Your task to perform on an android device: turn off smart reply in the gmail app Image 0: 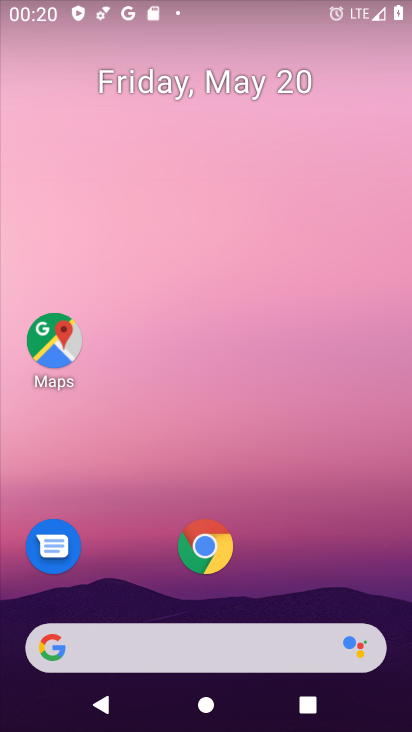
Step 0: drag from (292, 474) to (286, 120)
Your task to perform on an android device: turn off smart reply in the gmail app Image 1: 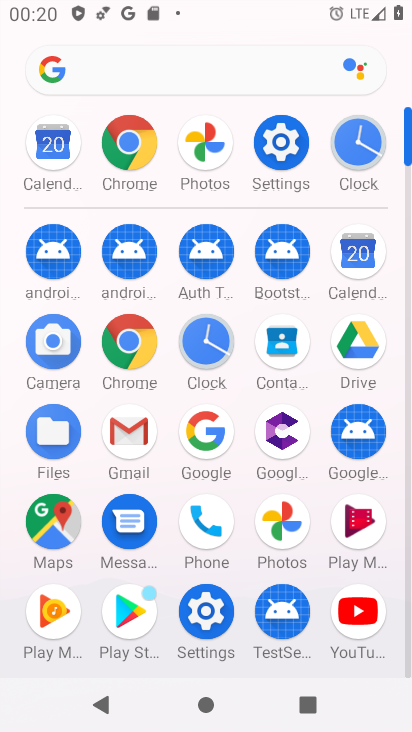
Step 1: click (134, 427)
Your task to perform on an android device: turn off smart reply in the gmail app Image 2: 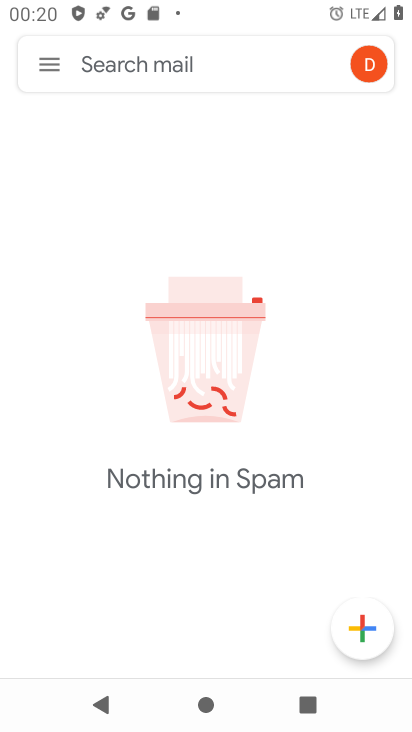
Step 2: click (58, 67)
Your task to perform on an android device: turn off smart reply in the gmail app Image 3: 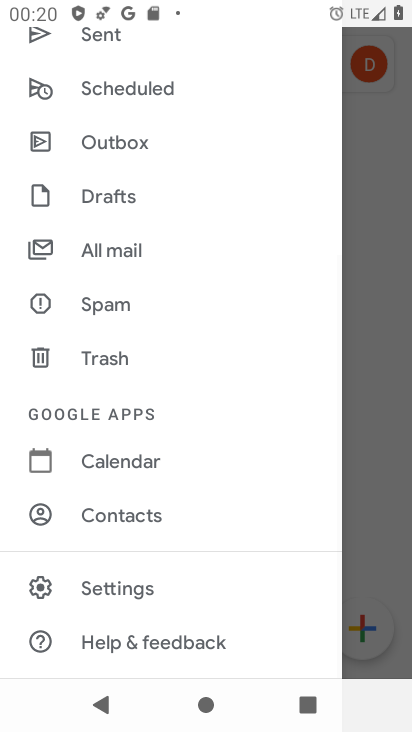
Step 3: click (150, 582)
Your task to perform on an android device: turn off smart reply in the gmail app Image 4: 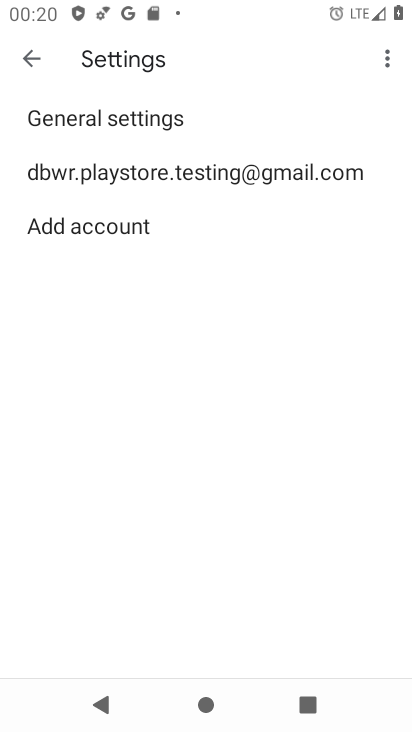
Step 4: click (211, 177)
Your task to perform on an android device: turn off smart reply in the gmail app Image 5: 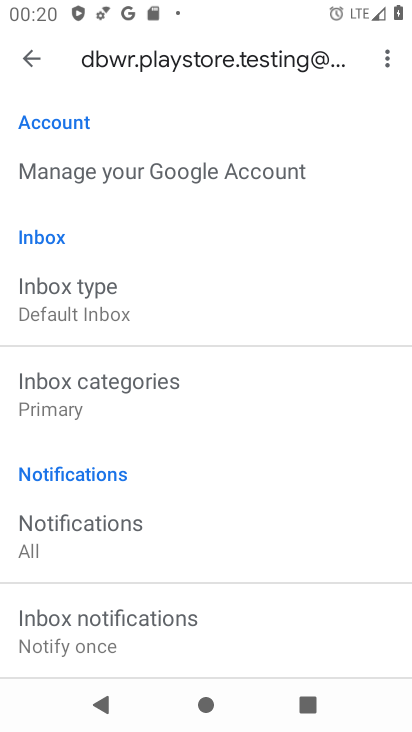
Step 5: drag from (213, 559) to (272, 144)
Your task to perform on an android device: turn off smart reply in the gmail app Image 6: 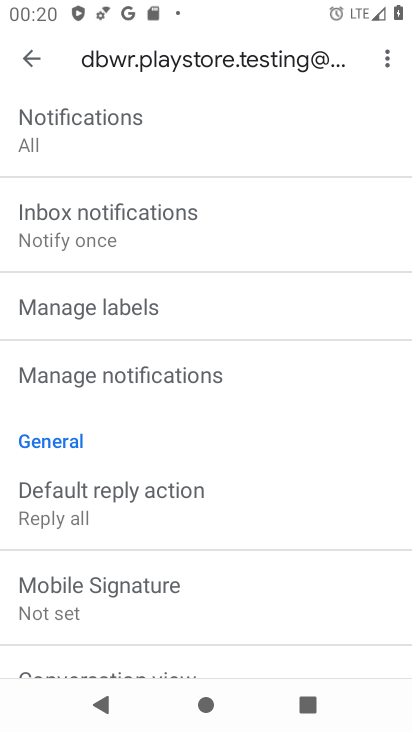
Step 6: drag from (254, 412) to (274, 165)
Your task to perform on an android device: turn off smart reply in the gmail app Image 7: 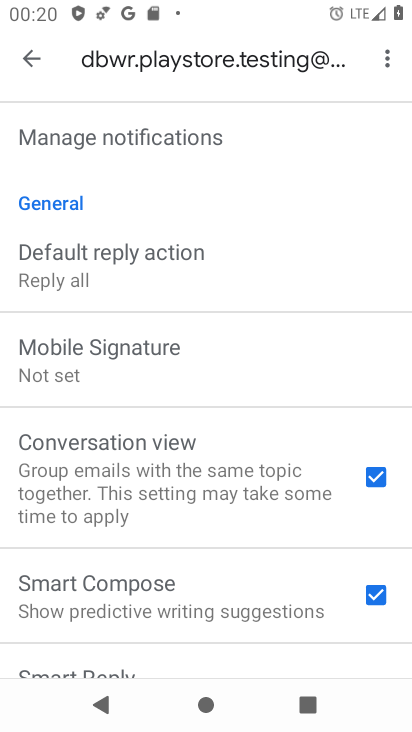
Step 7: drag from (253, 561) to (278, 191)
Your task to perform on an android device: turn off smart reply in the gmail app Image 8: 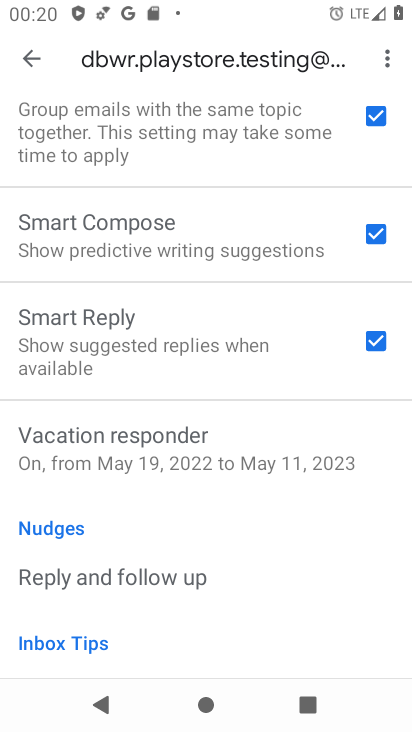
Step 8: click (370, 339)
Your task to perform on an android device: turn off smart reply in the gmail app Image 9: 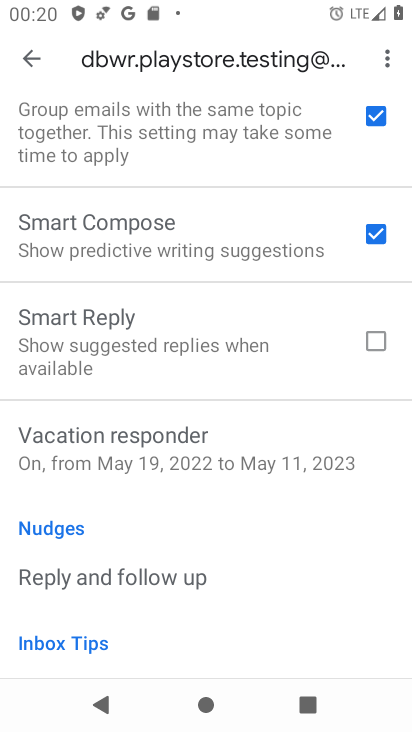
Step 9: task complete